Your task to perform on an android device: Go to Wikipedia Image 0: 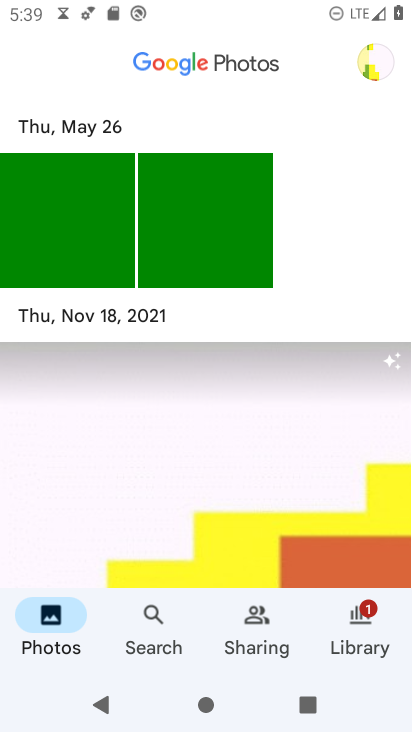
Step 0: press back button
Your task to perform on an android device: Go to Wikipedia Image 1: 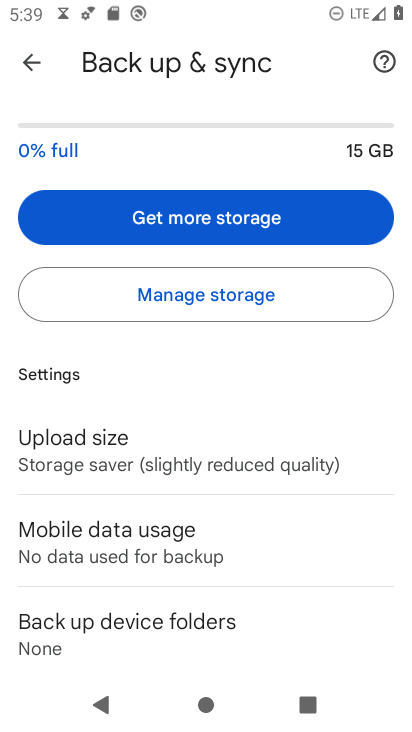
Step 1: press home button
Your task to perform on an android device: Go to Wikipedia Image 2: 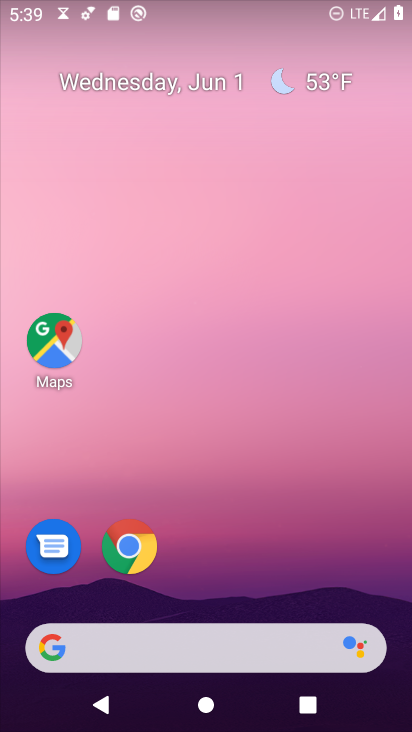
Step 2: drag from (290, 459) to (231, 8)
Your task to perform on an android device: Go to Wikipedia Image 3: 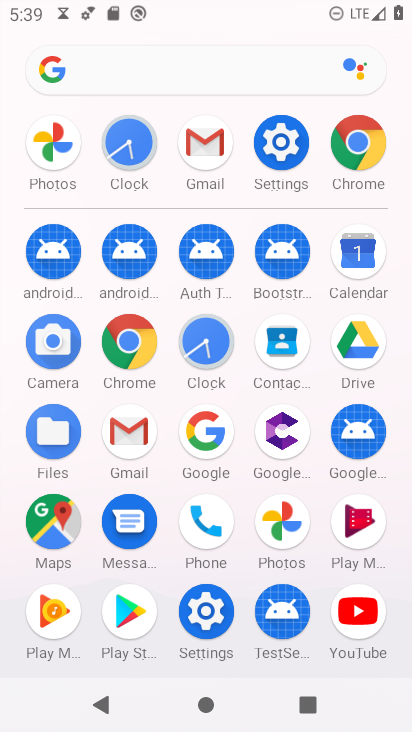
Step 3: click (349, 137)
Your task to perform on an android device: Go to Wikipedia Image 4: 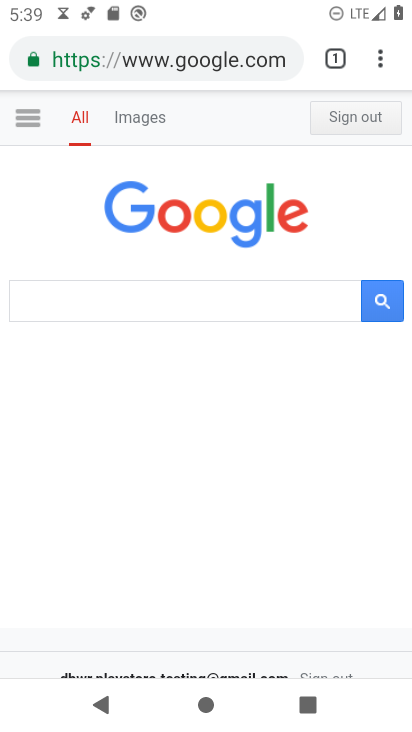
Step 4: click (202, 64)
Your task to perform on an android device: Go to Wikipedia Image 5: 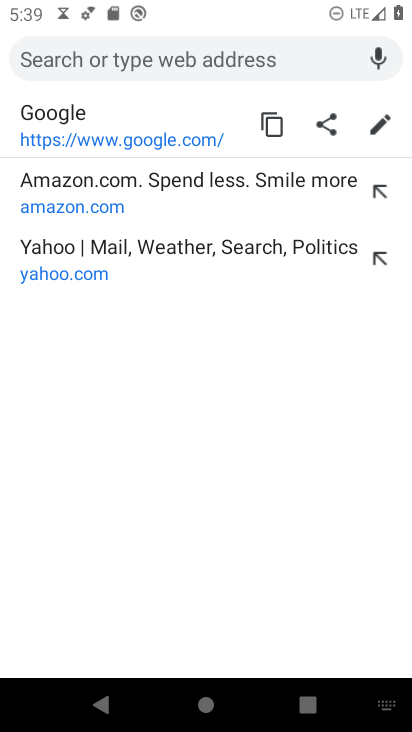
Step 5: type "Wikipedia"
Your task to perform on an android device: Go to Wikipedia Image 6: 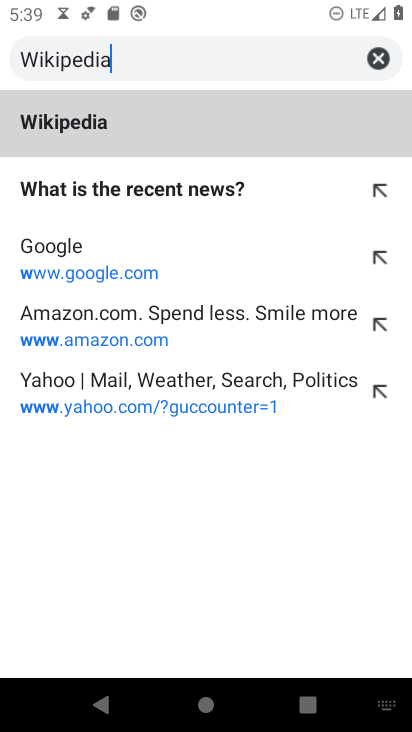
Step 6: type ""
Your task to perform on an android device: Go to Wikipedia Image 7: 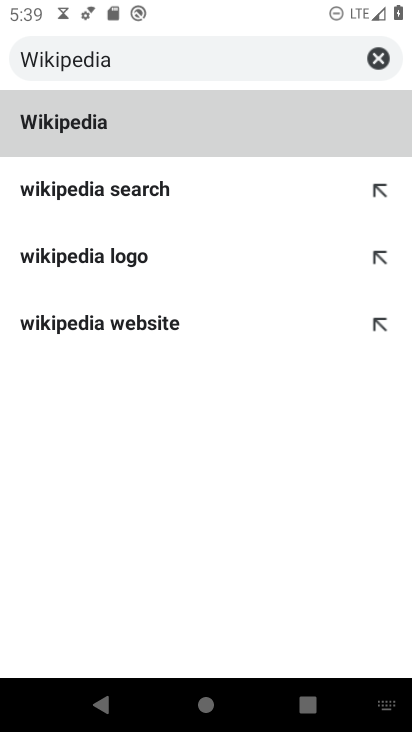
Step 7: click (146, 141)
Your task to perform on an android device: Go to Wikipedia Image 8: 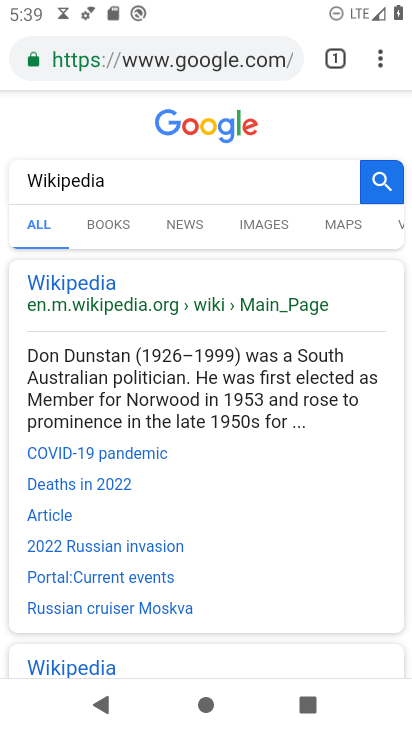
Step 8: click (91, 278)
Your task to perform on an android device: Go to Wikipedia Image 9: 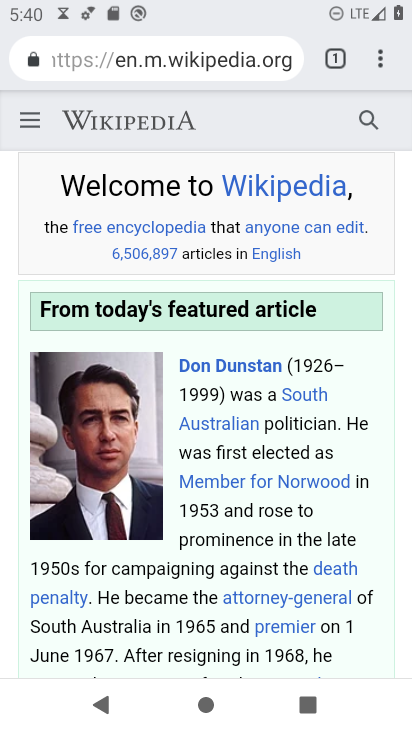
Step 9: task complete